Your task to perform on an android device: open app "Indeed Job Search" (install if not already installed) and enter user name: "quixotic@inbox.com" and password: "microphones" Image 0: 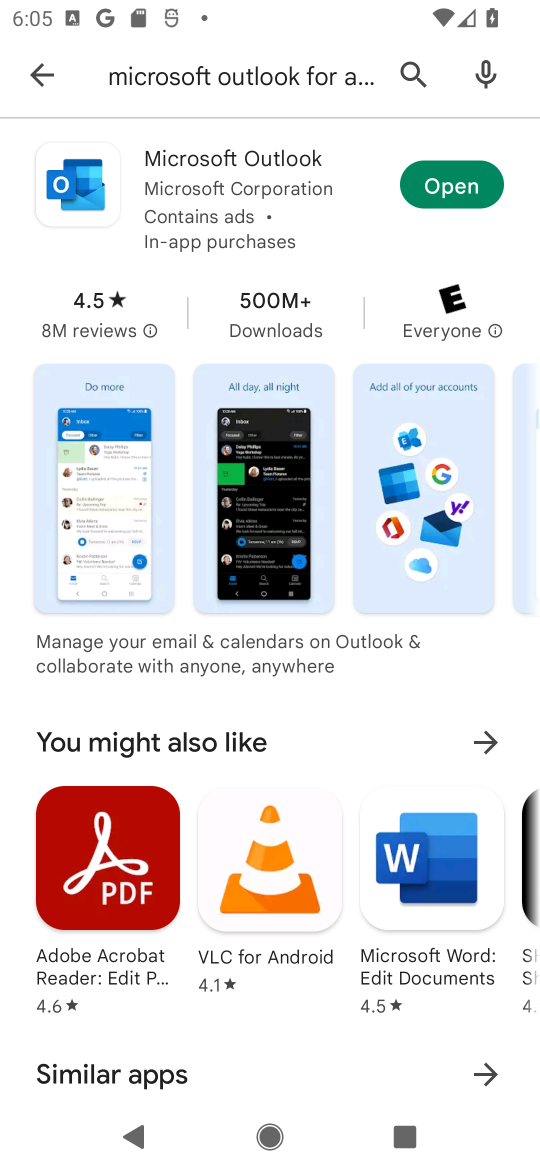
Step 0: click (35, 69)
Your task to perform on an android device: open app "Indeed Job Search" (install if not already installed) and enter user name: "quixotic@inbox.com" and password: "microphones" Image 1: 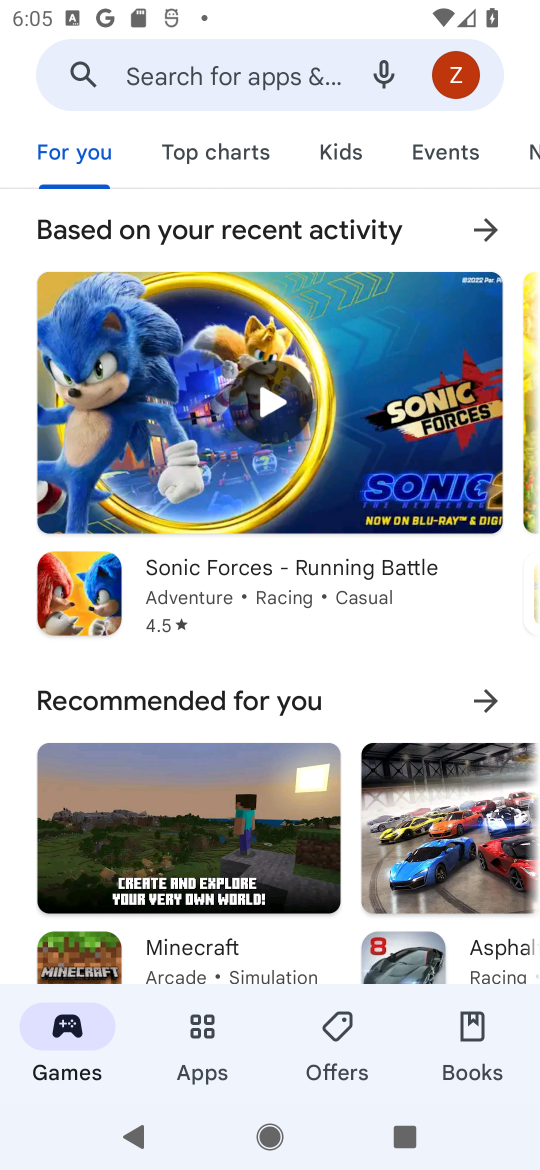
Step 1: click (266, 73)
Your task to perform on an android device: open app "Indeed Job Search" (install if not already installed) and enter user name: "quixotic@inbox.com" and password: "microphones" Image 2: 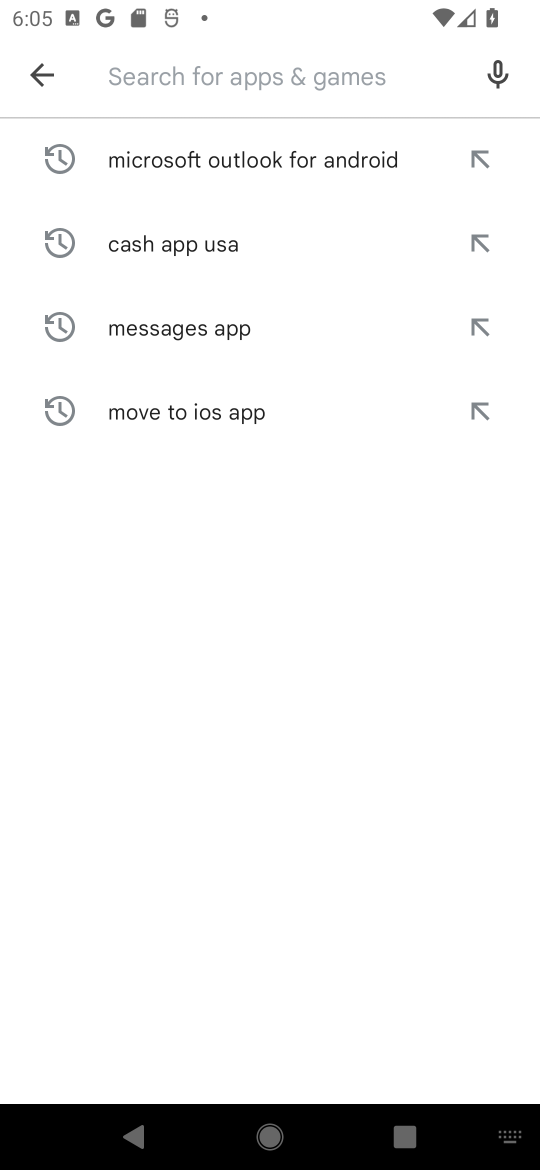
Step 2: type "Indeed Job Search "
Your task to perform on an android device: open app "Indeed Job Search" (install if not already installed) and enter user name: "quixotic@inbox.com" and password: "microphones" Image 3: 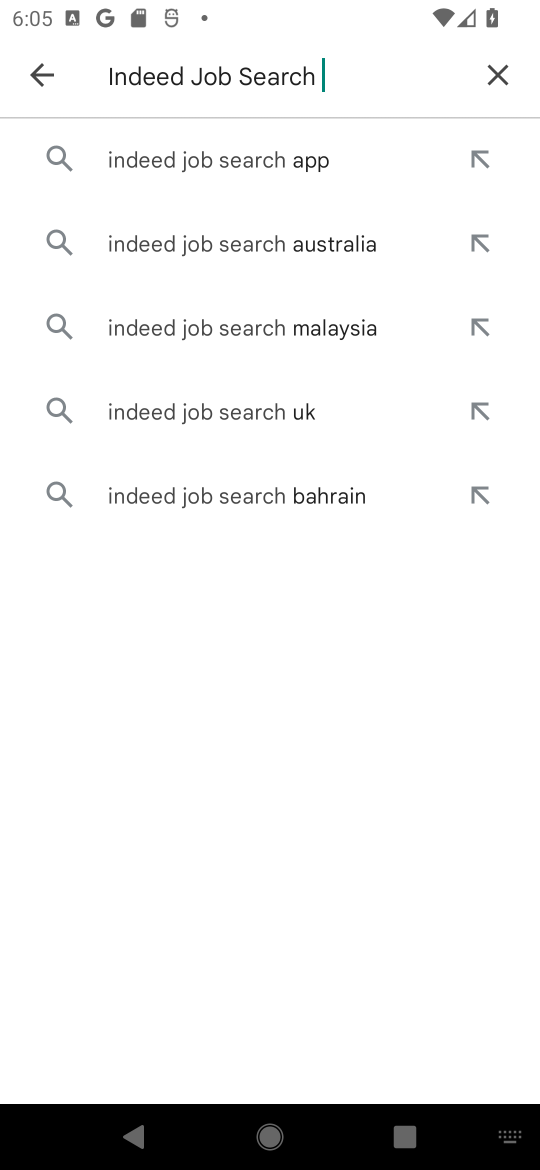
Step 3: click (253, 171)
Your task to perform on an android device: open app "Indeed Job Search" (install if not already installed) and enter user name: "quixotic@inbox.com" and password: "microphones" Image 4: 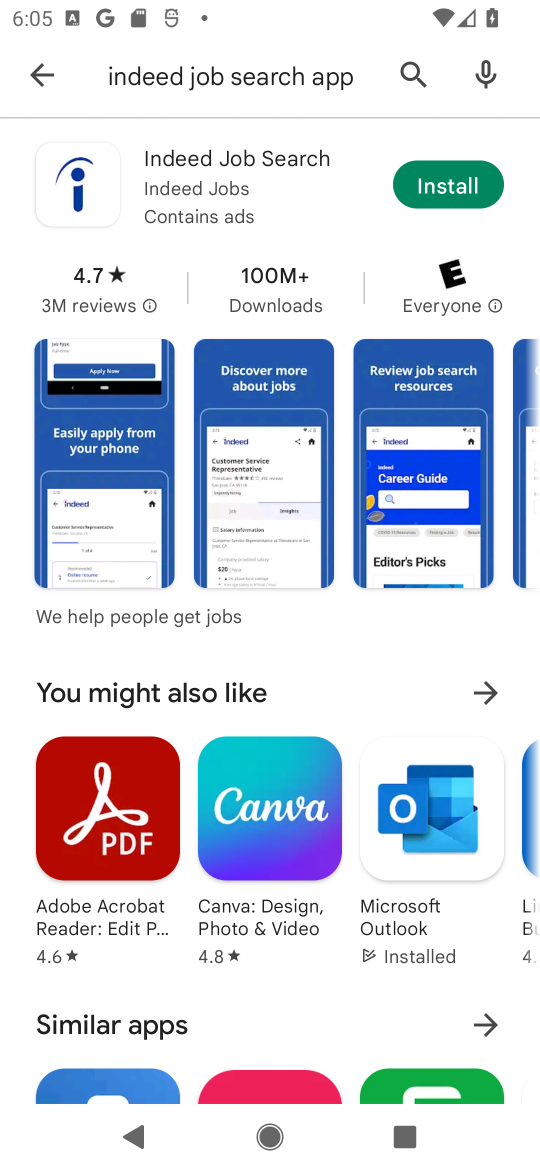
Step 4: click (461, 180)
Your task to perform on an android device: open app "Indeed Job Search" (install if not already installed) and enter user name: "quixotic@inbox.com" and password: "microphones" Image 5: 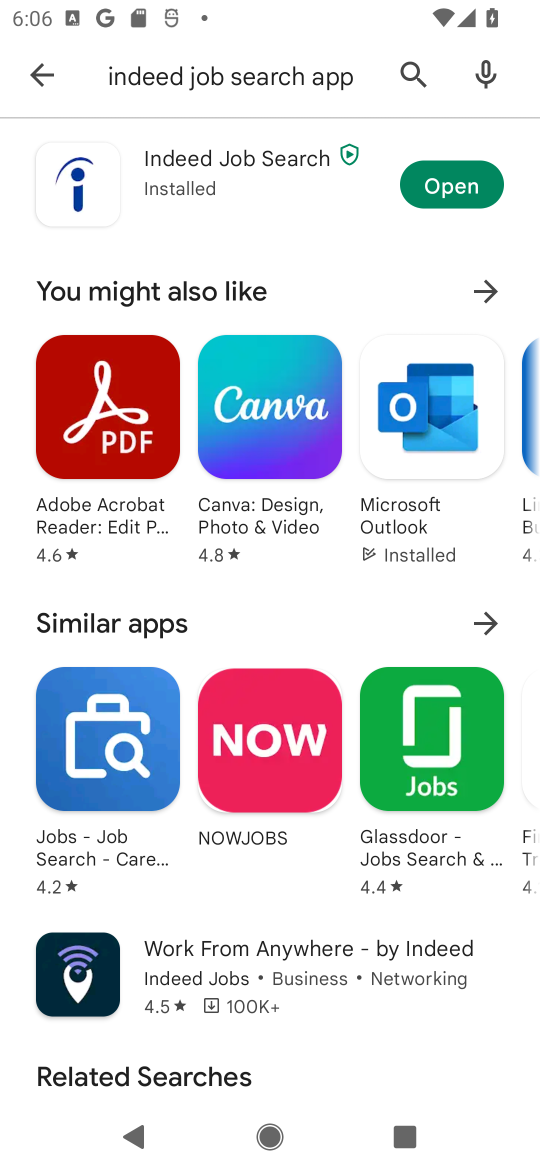
Step 5: click (452, 200)
Your task to perform on an android device: open app "Indeed Job Search" (install if not already installed) and enter user name: "quixotic@inbox.com" and password: "microphones" Image 6: 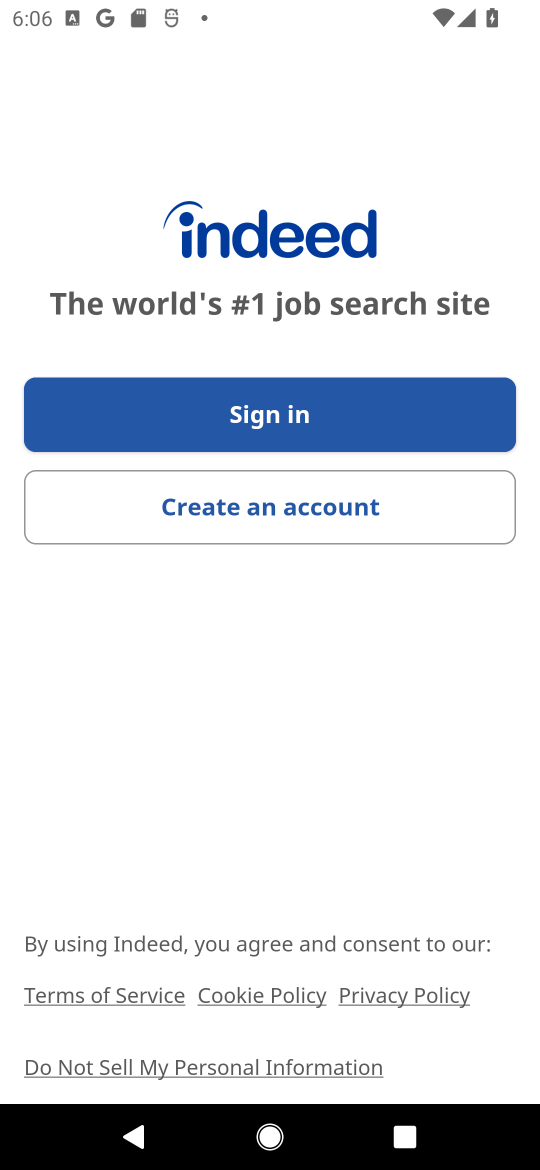
Step 6: task complete